Your task to perform on an android device: check battery use Image 0: 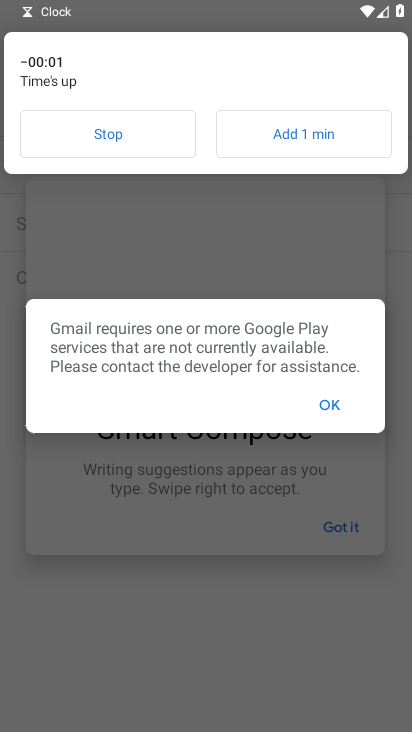
Step 0: press home button
Your task to perform on an android device: check battery use Image 1: 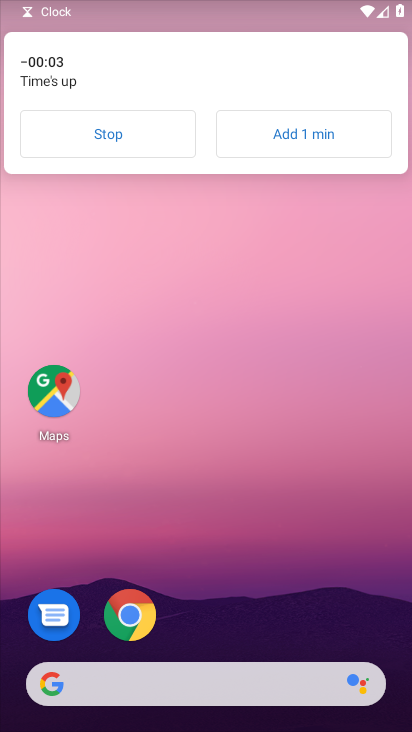
Step 1: click (144, 135)
Your task to perform on an android device: check battery use Image 2: 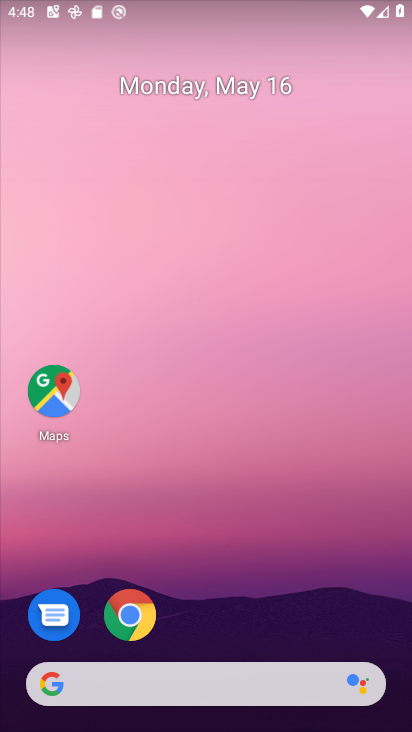
Step 2: drag from (232, 581) to (228, 0)
Your task to perform on an android device: check battery use Image 3: 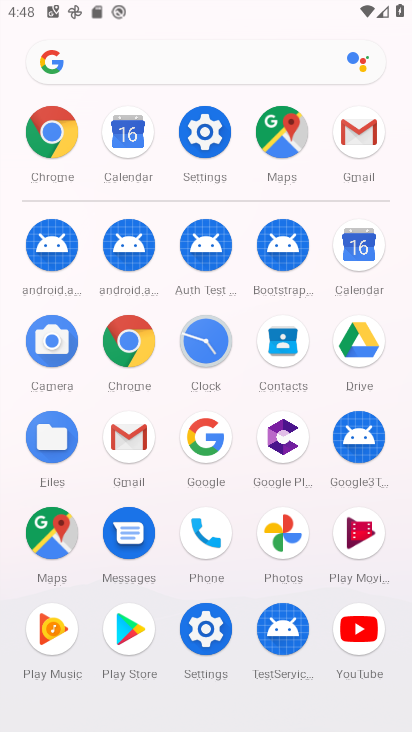
Step 3: click (205, 636)
Your task to perform on an android device: check battery use Image 4: 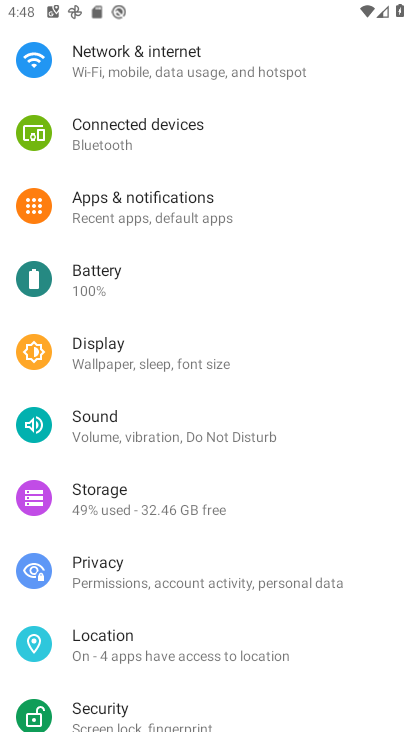
Step 4: click (104, 289)
Your task to perform on an android device: check battery use Image 5: 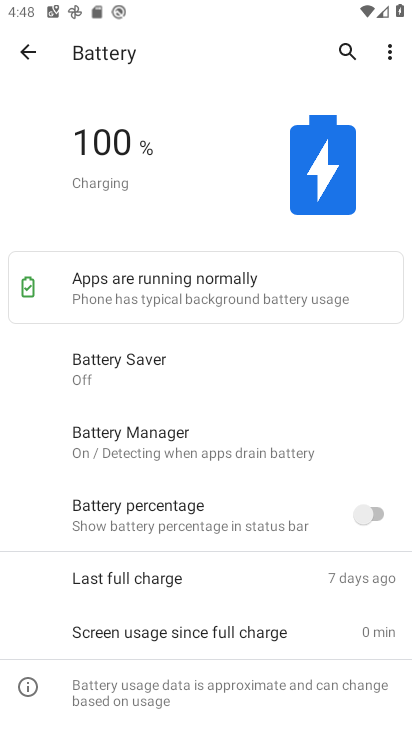
Step 5: task complete